Your task to perform on an android device: Is it going to rain today? Image 0: 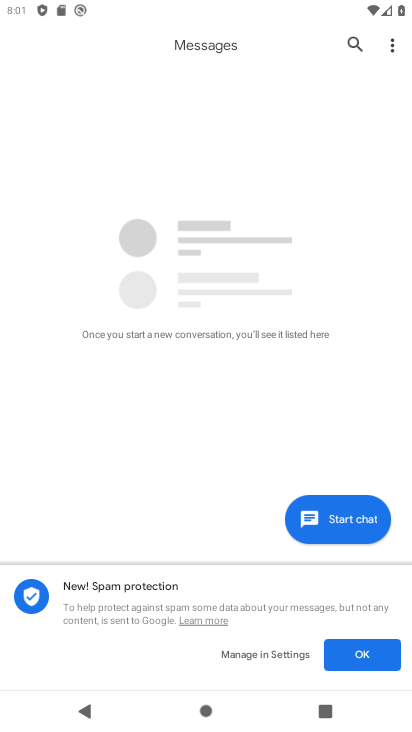
Step 0: press home button
Your task to perform on an android device: Is it going to rain today? Image 1: 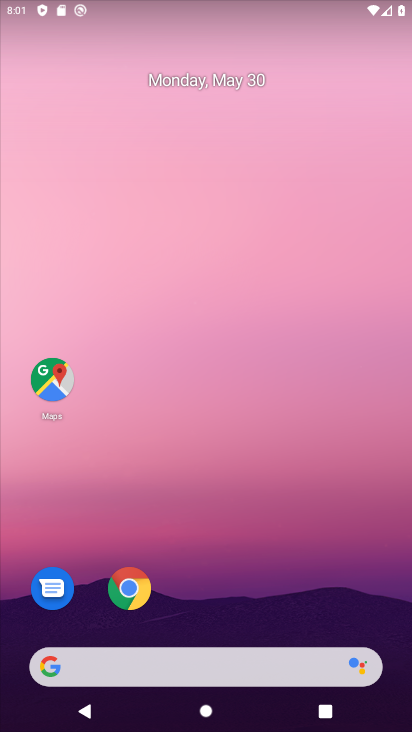
Step 1: click (159, 656)
Your task to perform on an android device: Is it going to rain today? Image 2: 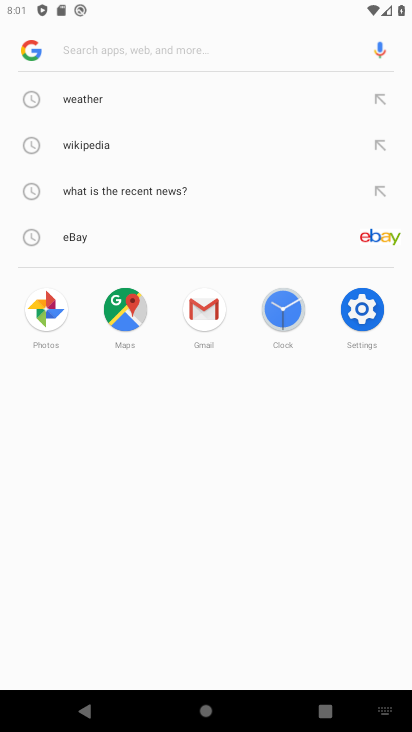
Step 2: type "is it going to rain today"
Your task to perform on an android device: Is it going to rain today? Image 3: 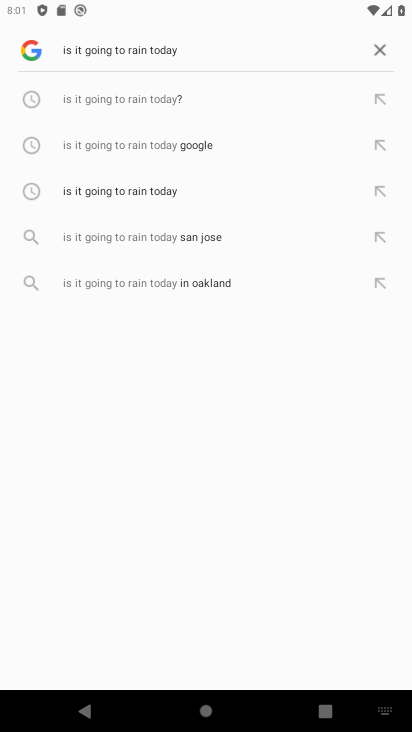
Step 3: click (128, 98)
Your task to perform on an android device: Is it going to rain today? Image 4: 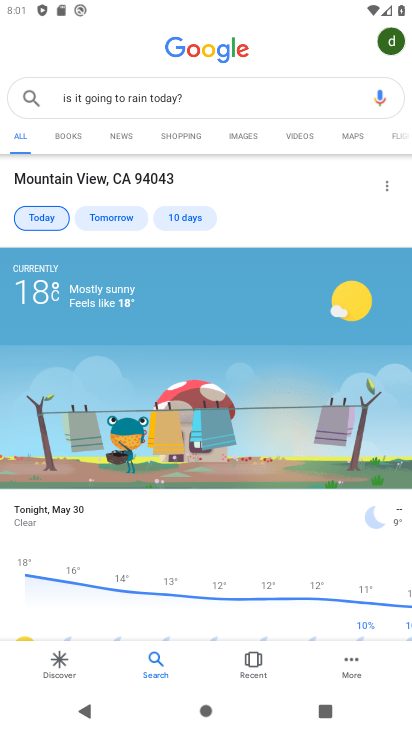
Step 4: task complete